Your task to perform on an android device: turn vacation reply on in the gmail app Image 0: 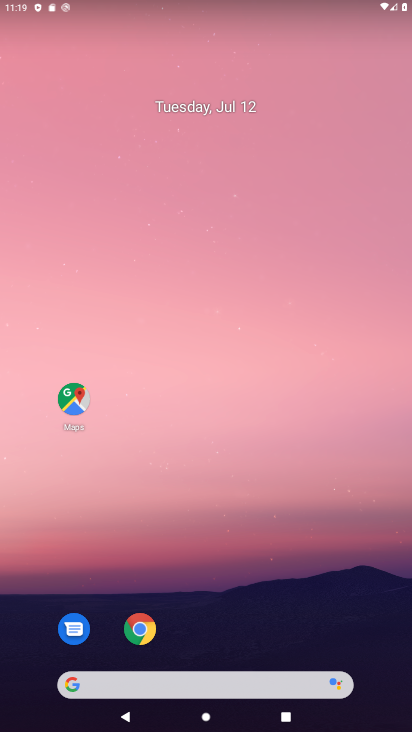
Step 0: drag from (202, 645) to (143, 78)
Your task to perform on an android device: turn vacation reply on in the gmail app Image 1: 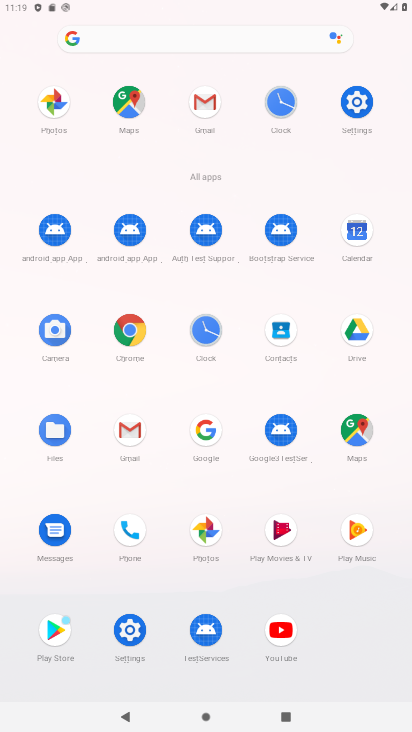
Step 1: click (124, 425)
Your task to perform on an android device: turn vacation reply on in the gmail app Image 2: 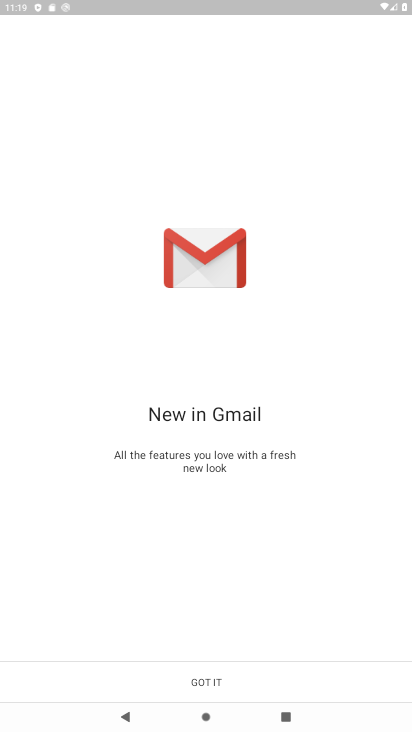
Step 2: click (219, 680)
Your task to perform on an android device: turn vacation reply on in the gmail app Image 3: 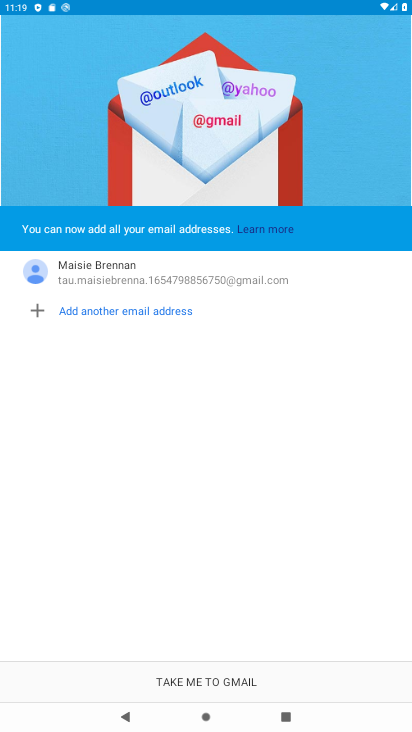
Step 3: click (219, 680)
Your task to perform on an android device: turn vacation reply on in the gmail app Image 4: 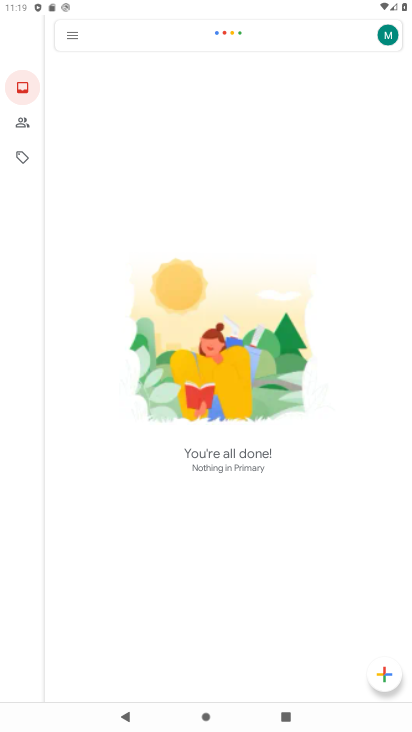
Step 4: click (71, 33)
Your task to perform on an android device: turn vacation reply on in the gmail app Image 5: 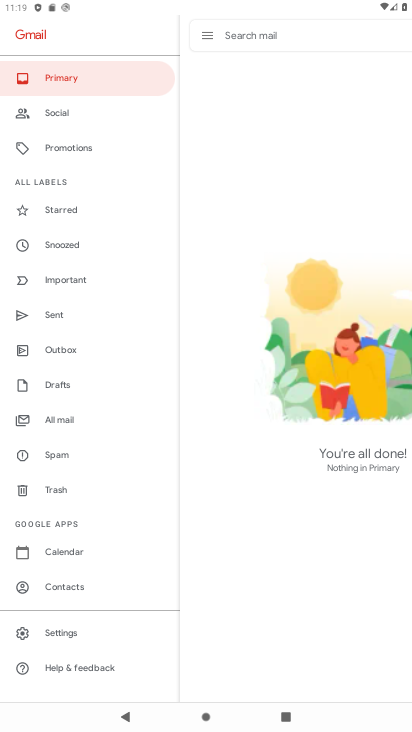
Step 5: click (68, 632)
Your task to perform on an android device: turn vacation reply on in the gmail app Image 6: 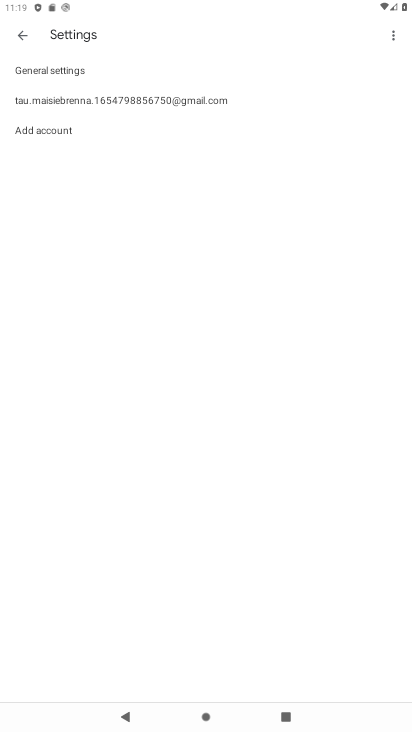
Step 6: click (30, 98)
Your task to perform on an android device: turn vacation reply on in the gmail app Image 7: 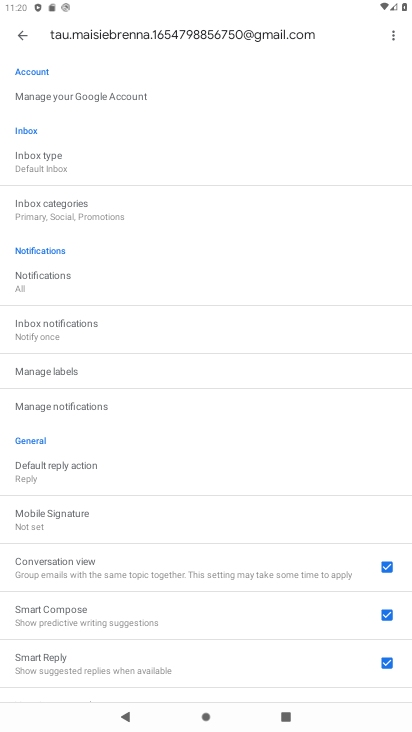
Step 7: drag from (317, 597) to (239, 202)
Your task to perform on an android device: turn vacation reply on in the gmail app Image 8: 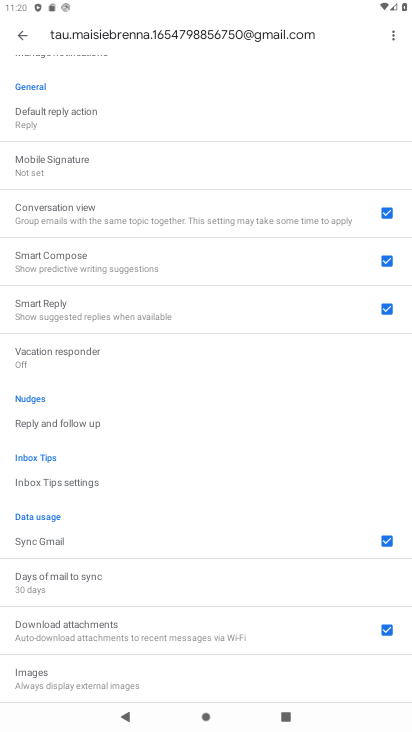
Step 8: click (61, 369)
Your task to perform on an android device: turn vacation reply on in the gmail app Image 9: 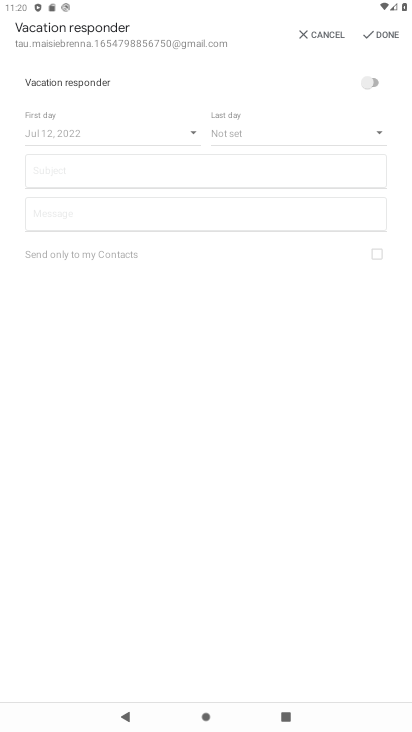
Step 9: task complete